Your task to perform on an android device: set an alarm Image 0: 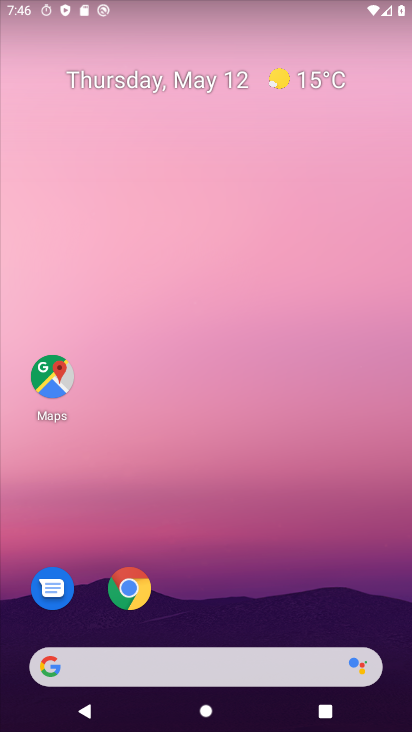
Step 0: drag from (183, 582) to (250, 101)
Your task to perform on an android device: set an alarm Image 1: 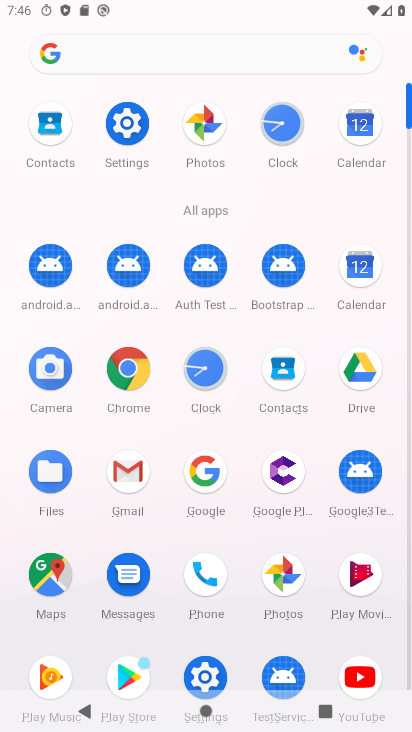
Step 1: click (268, 117)
Your task to perform on an android device: set an alarm Image 2: 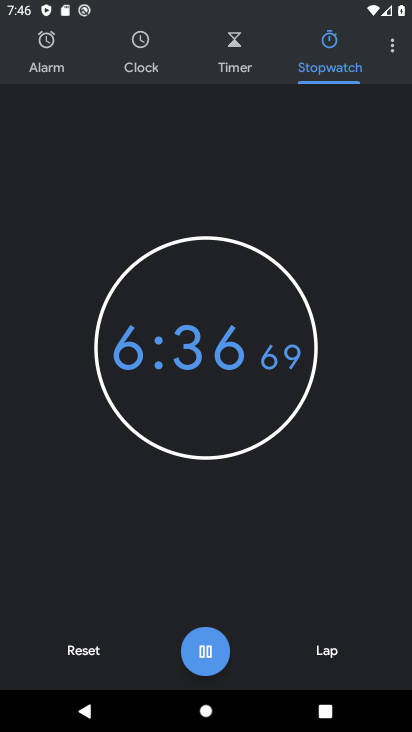
Step 2: click (162, 351)
Your task to perform on an android device: set an alarm Image 3: 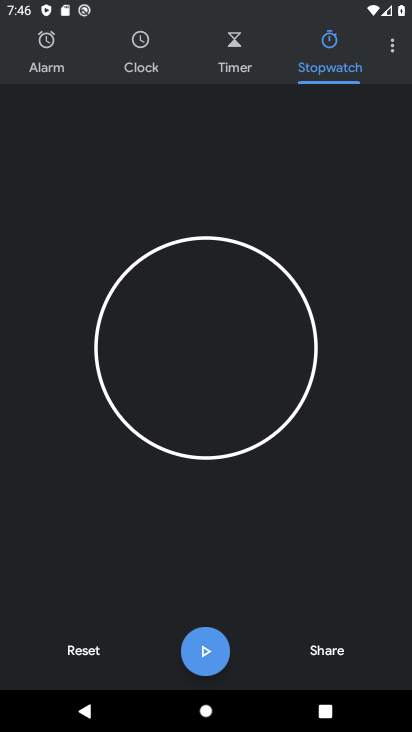
Step 3: click (41, 66)
Your task to perform on an android device: set an alarm Image 4: 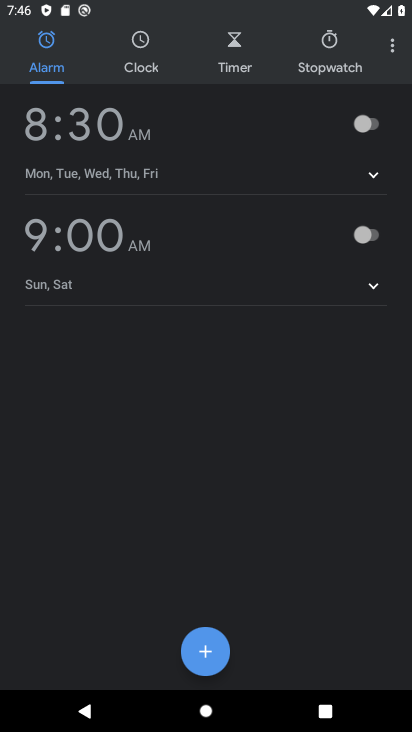
Step 4: click (369, 125)
Your task to perform on an android device: set an alarm Image 5: 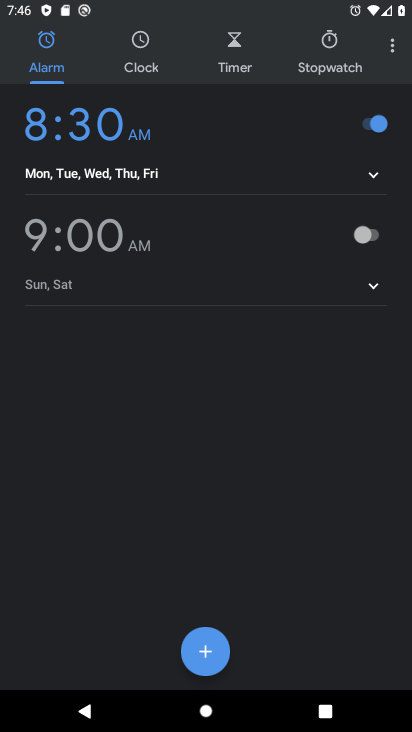
Step 5: task complete